Your task to perform on an android device: Open CNN.com Image 0: 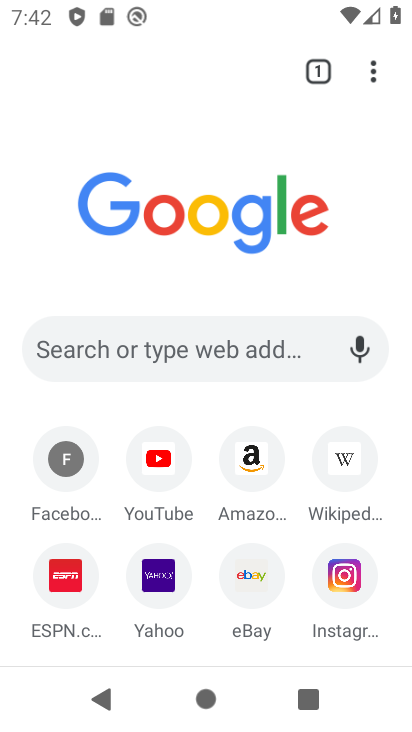
Step 0: drag from (6, 601) to (0, 345)
Your task to perform on an android device: Open CNN.com Image 1: 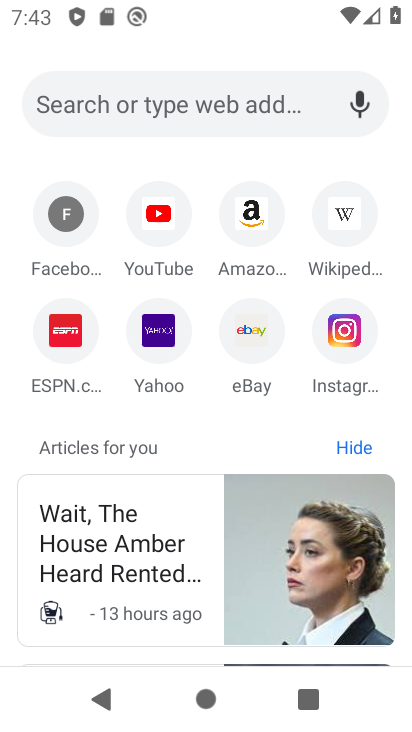
Step 1: click (151, 79)
Your task to perform on an android device: Open CNN.com Image 2: 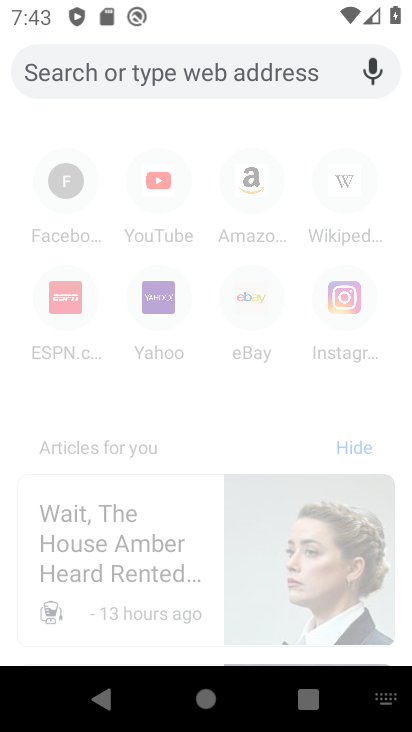
Step 2: type "CNN.com"
Your task to perform on an android device: Open CNN.com Image 3: 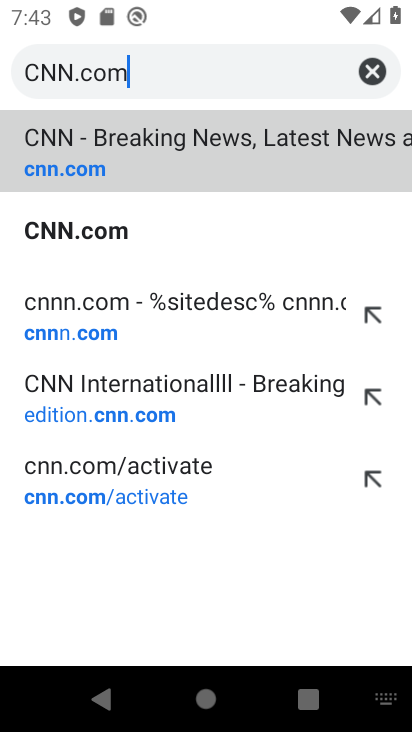
Step 3: type ""
Your task to perform on an android device: Open CNN.com Image 4: 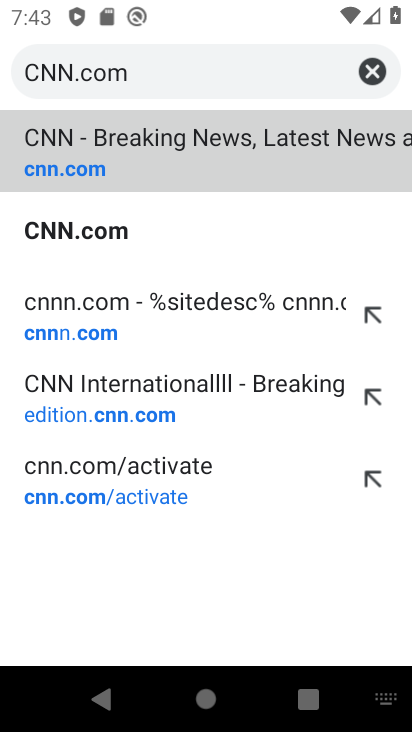
Step 4: click (210, 159)
Your task to perform on an android device: Open CNN.com Image 5: 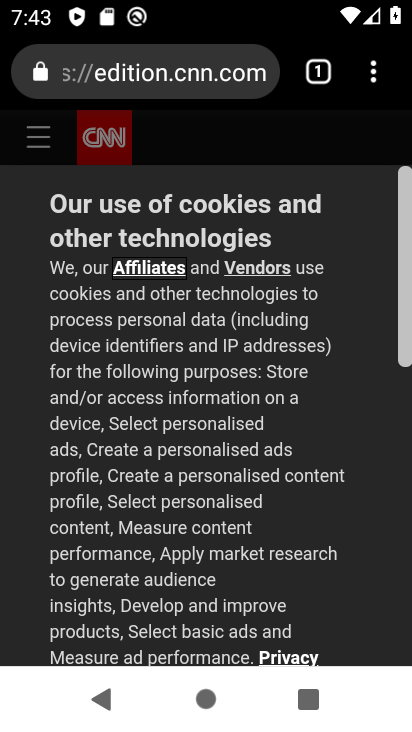
Step 5: drag from (314, 526) to (343, 209)
Your task to perform on an android device: Open CNN.com Image 6: 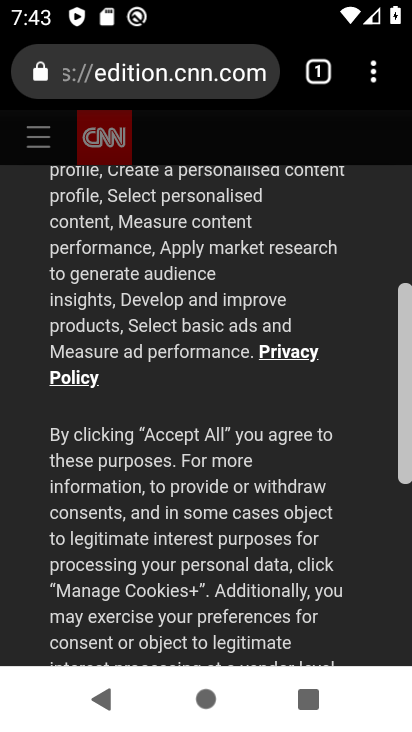
Step 6: drag from (283, 550) to (326, 185)
Your task to perform on an android device: Open CNN.com Image 7: 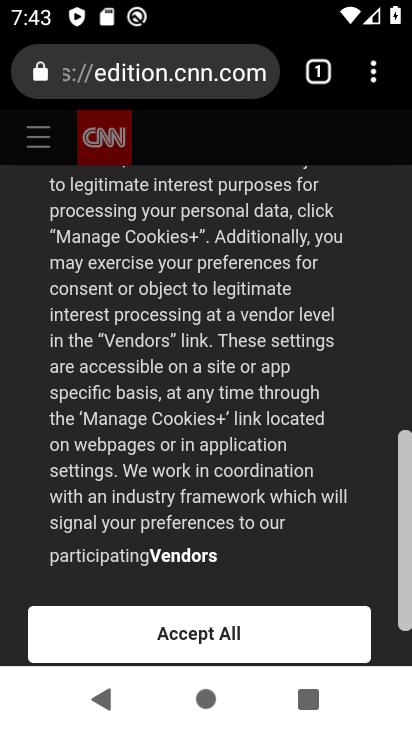
Step 7: click (259, 617)
Your task to perform on an android device: Open CNN.com Image 8: 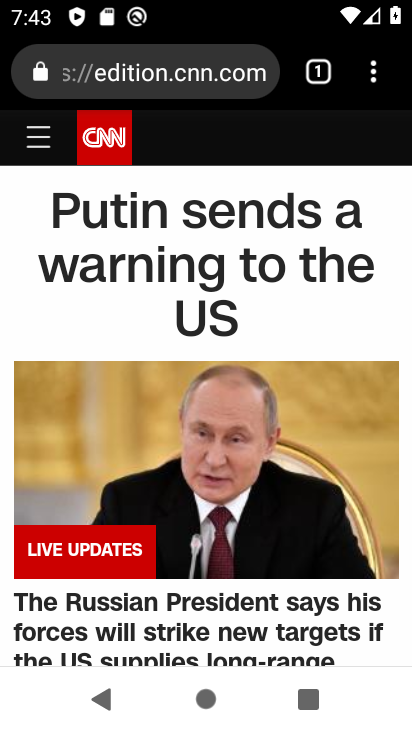
Step 8: task complete